Your task to perform on an android device: Open Wikipedia Image 0: 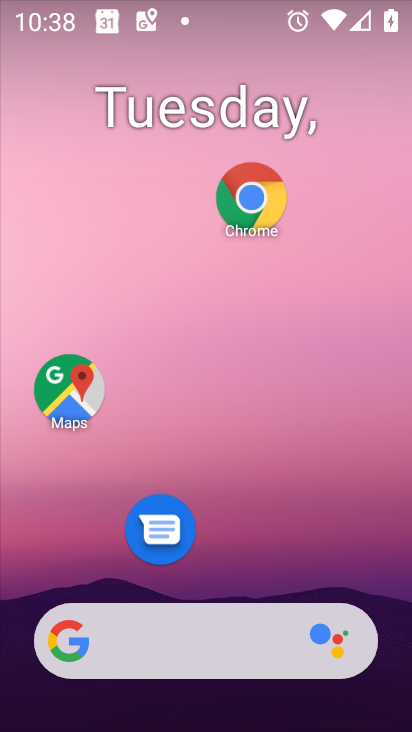
Step 0: drag from (263, 566) to (243, 122)
Your task to perform on an android device: Open Wikipedia Image 1: 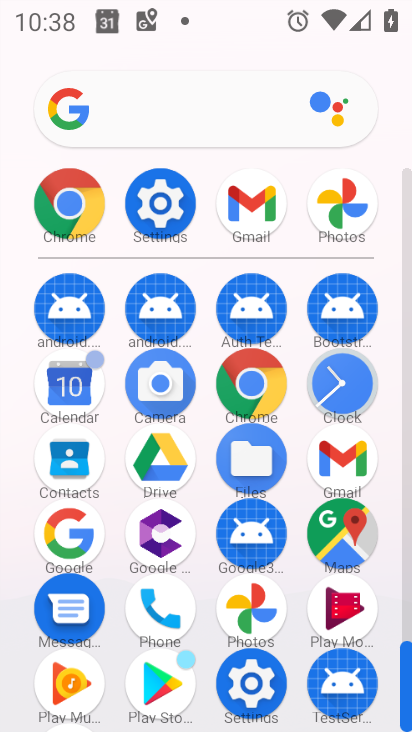
Step 1: click (244, 357)
Your task to perform on an android device: Open Wikipedia Image 2: 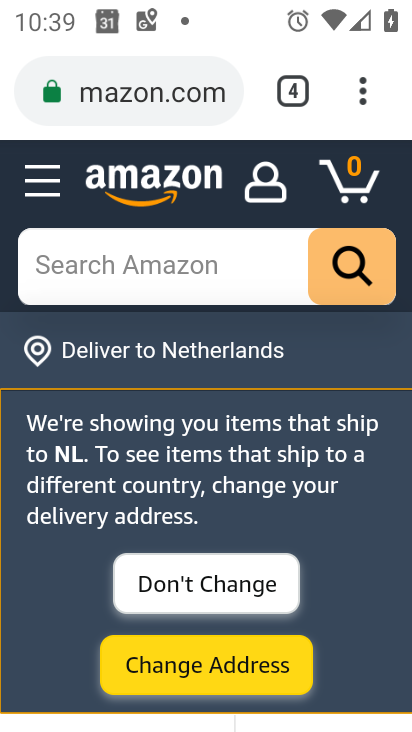
Step 2: click (369, 103)
Your task to perform on an android device: Open Wikipedia Image 3: 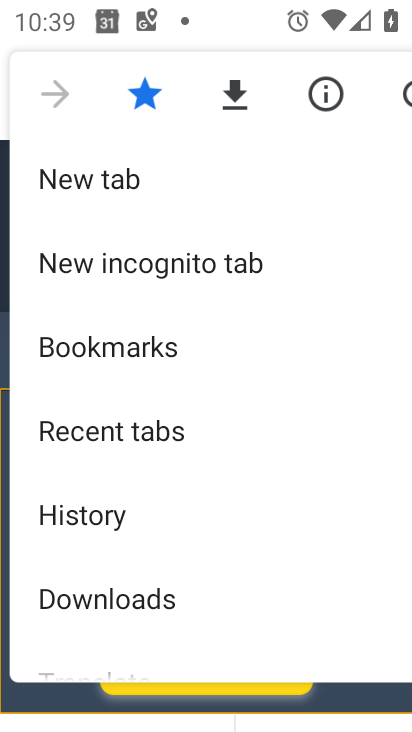
Step 3: drag from (134, 615) to (106, 390)
Your task to perform on an android device: Open Wikipedia Image 4: 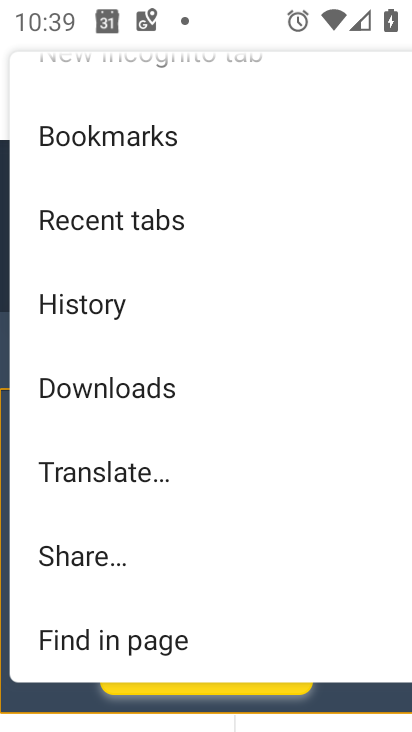
Step 4: drag from (141, 573) to (188, 286)
Your task to perform on an android device: Open Wikipedia Image 5: 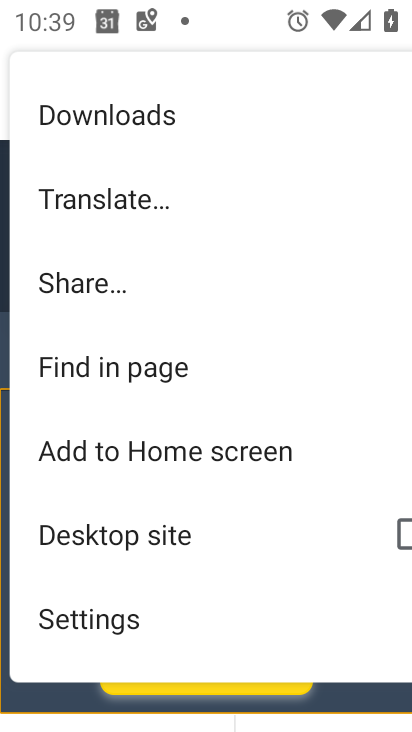
Step 5: click (159, 636)
Your task to perform on an android device: Open Wikipedia Image 6: 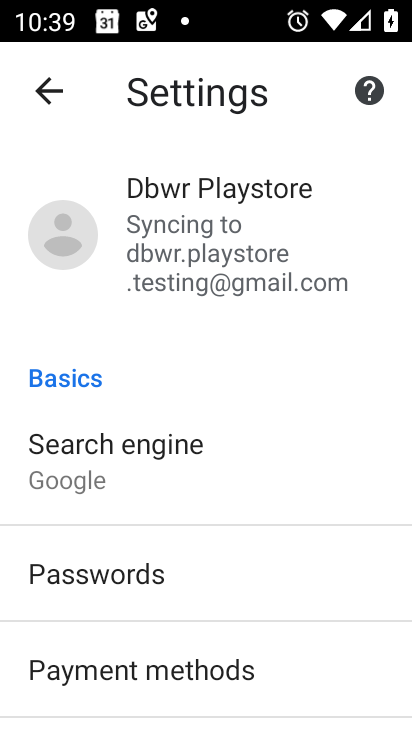
Step 6: click (58, 91)
Your task to perform on an android device: Open Wikipedia Image 7: 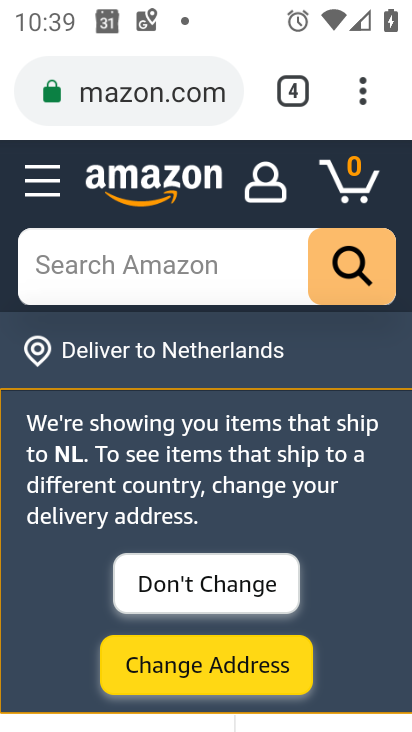
Step 7: click (169, 96)
Your task to perform on an android device: Open Wikipedia Image 8: 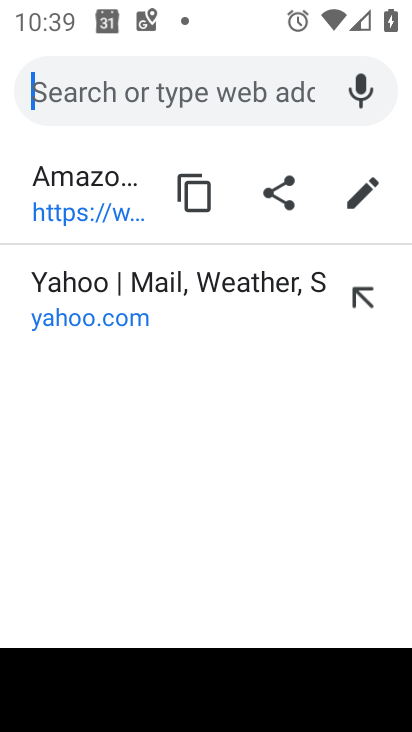
Step 8: type "wikipedia"
Your task to perform on an android device: Open Wikipedia Image 9: 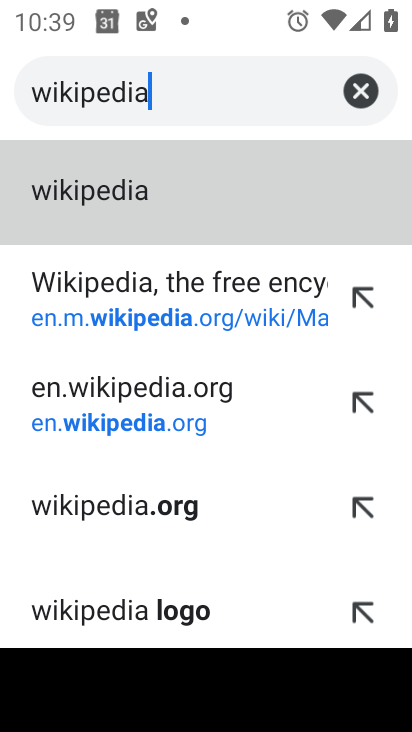
Step 9: click (156, 274)
Your task to perform on an android device: Open Wikipedia Image 10: 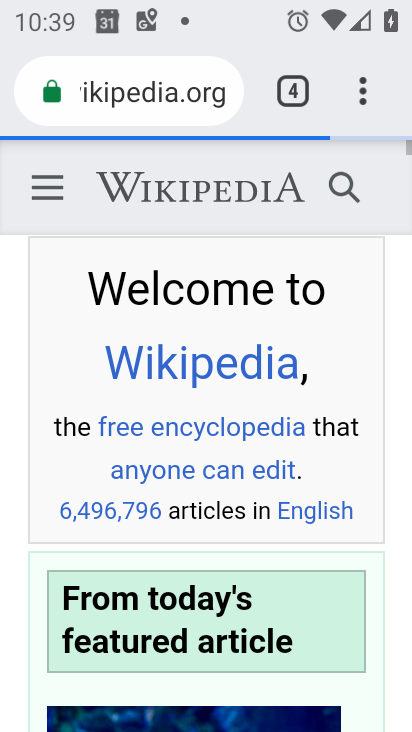
Step 10: task complete